Your task to perform on an android device: Show me popular games on the Play Store Image 0: 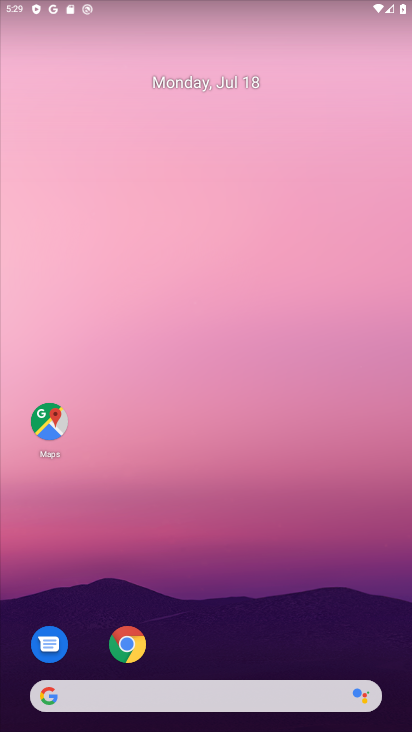
Step 0: press home button
Your task to perform on an android device: Show me popular games on the Play Store Image 1: 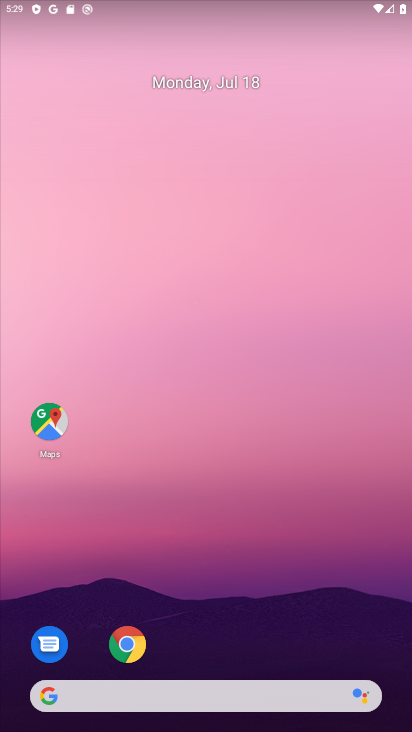
Step 1: drag from (310, 615) to (343, 137)
Your task to perform on an android device: Show me popular games on the Play Store Image 2: 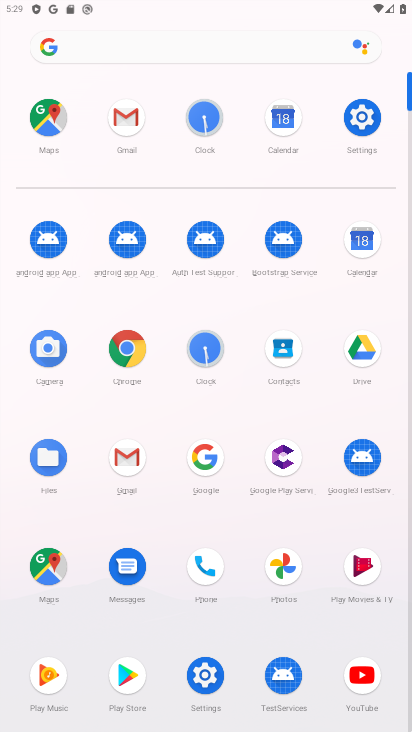
Step 2: click (126, 664)
Your task to perform on an android device: Show me popular games on the Play Store Image 3: 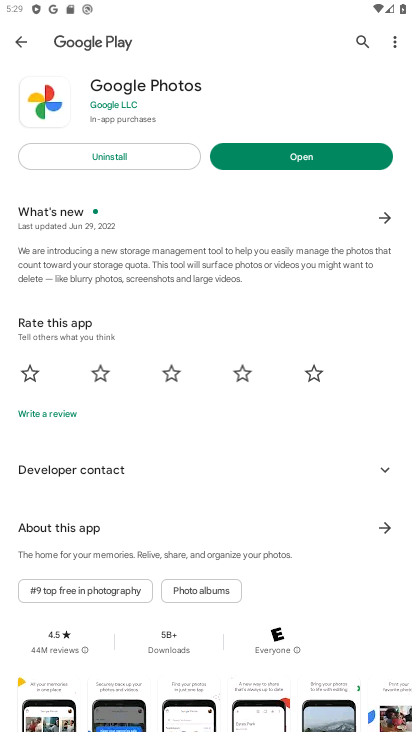
Step 3: click (19, 40)
Your task to perform on an android device: Show me popular games on the Play Store Image 4: 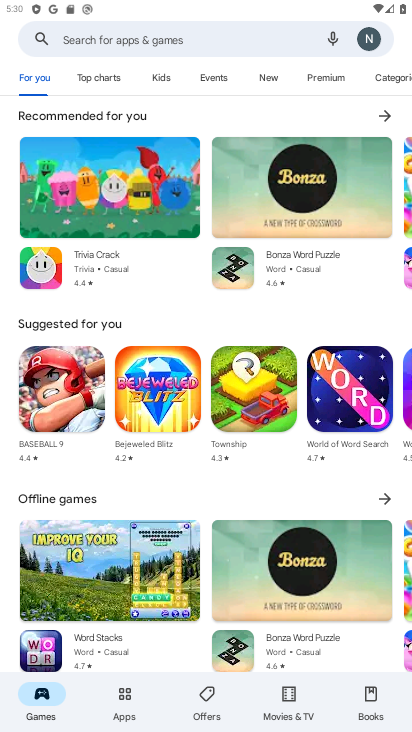
Step 4: task complete